Your task to perform on an android device: choose inbox layout in the gmail app Image 0: 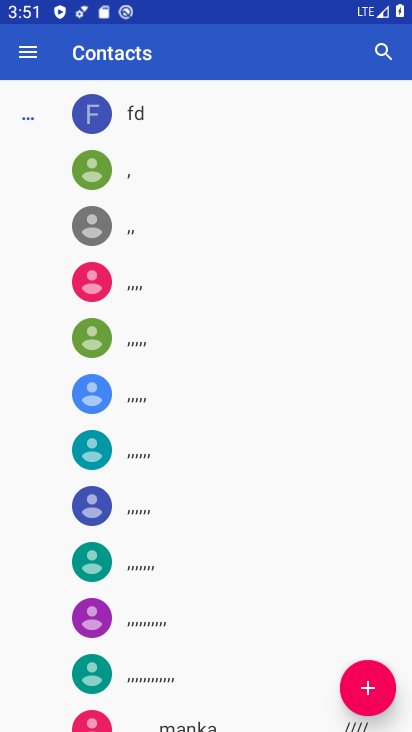
Step 0: press home button
Your task to perform on an android device: choose inbox layout in the gmail app Image 1: 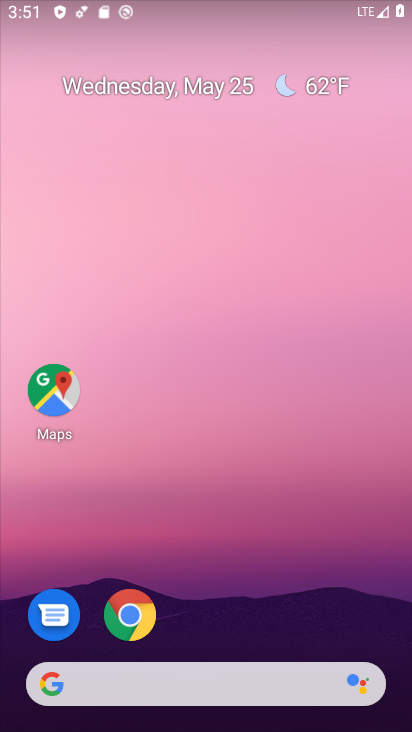
Step 1: drag from (313, 493) to (192, 31)
Your task to perform on an android device: choose inbox layout in the gmail app Image 2: 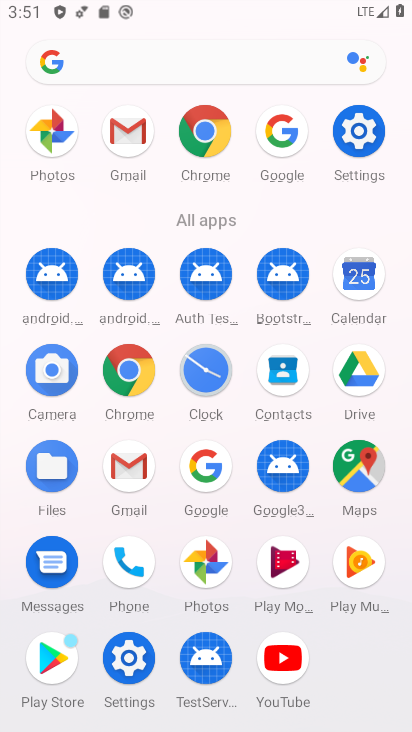
Step 2: click (124, 153)
Your task to perform on an android device: choose inbox layout in the gmail app Image 3: 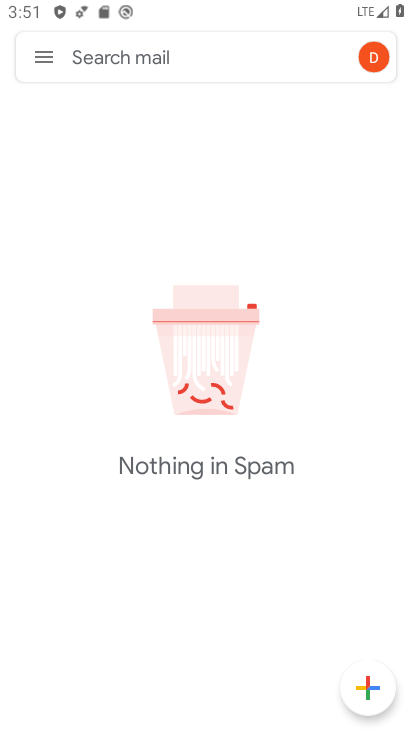
Step 3: click (45, 52)
Your task to perform on an android device: choose inbox layout in the gmail app Image 4: 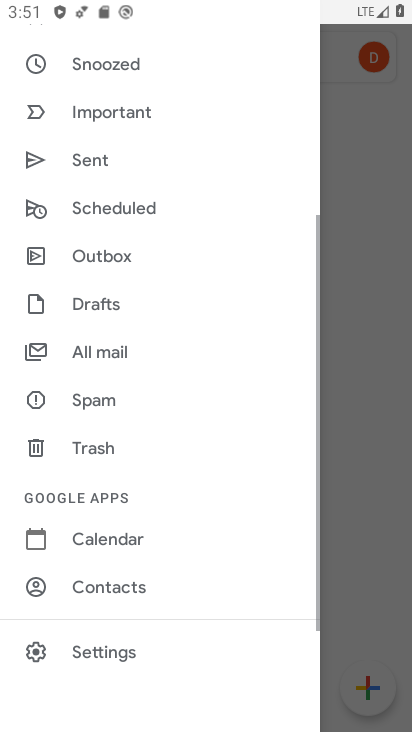
Step 4: click (174, 671)
Your task to perform on an android device: choose inbox layout in the gmail app Image 5: 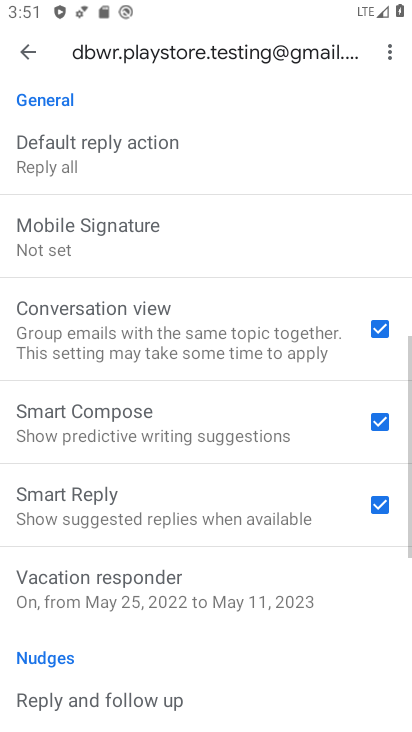
Step 5: drag from (225, 177) to (191, 704)
Your task to perform on an android device: choose inbox layout in the gmail app Image 6: 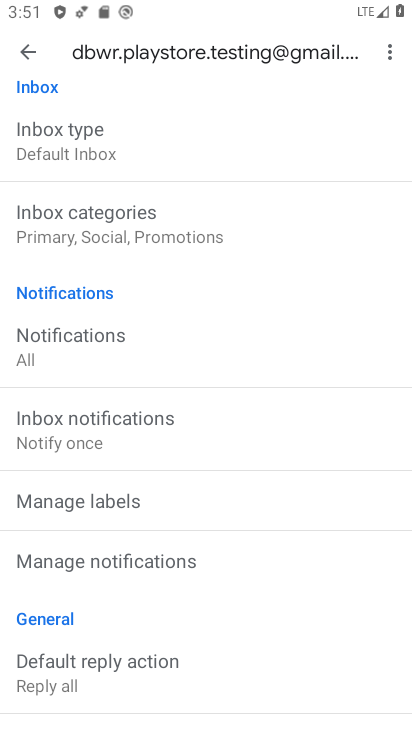
Step 6: click (136, 153)
Your task to perform on an android device: choose inbox layout in the gmail app Image 7: 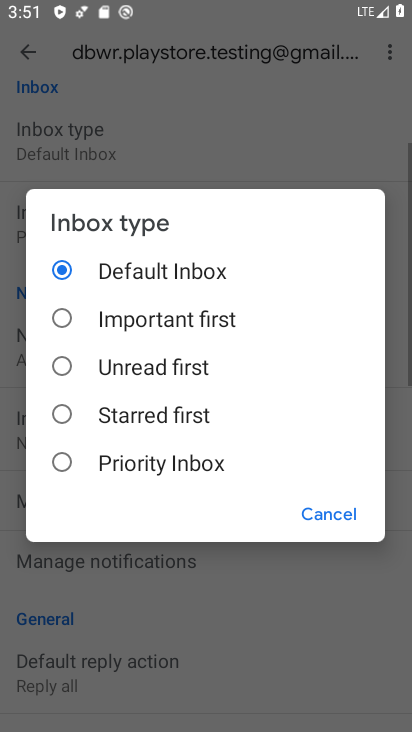
Step 7: click (179, 316)
Your task to perform on an android device: choose inbox layout in the gmail app Image 8: 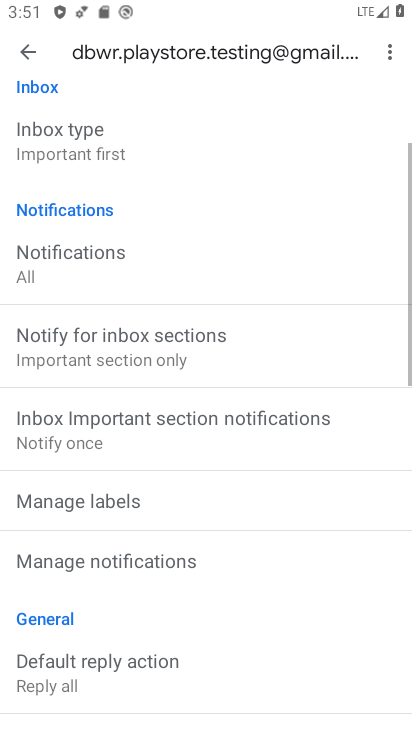
Step 8: task complete